Your task to perform on an android device: What's the weather? Image 0: 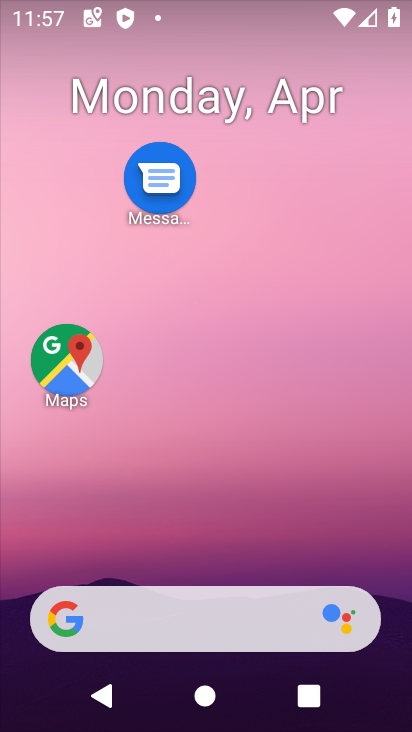
Step 0: drag from (208, 682) to (212, 102)
Your task to perform on an android device: What's the weather? Image 1: 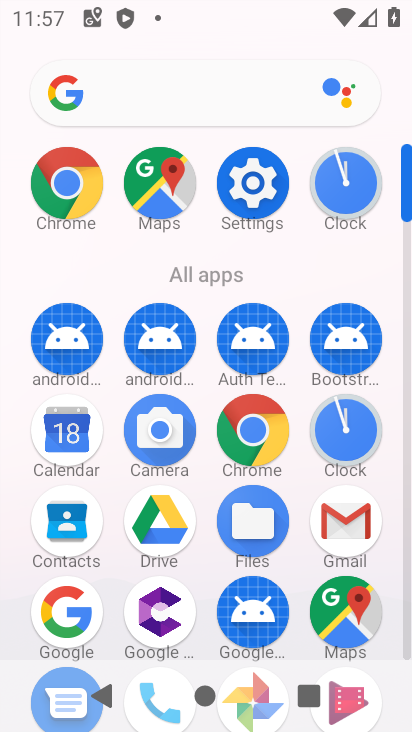
Step 1: click (52, 607)
Your task to perform on an android device: What's the weather? Image 2: 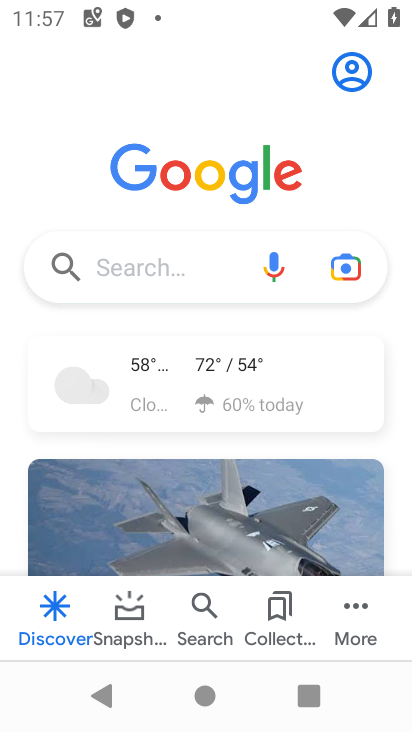
Step 2: click (213, 372)
Your task to perform on an android device: What's the weather? Image 3: 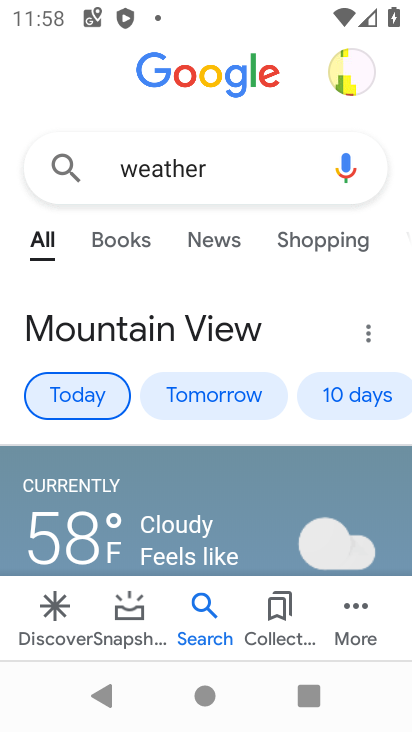
Step 3: task complete